Your task to perform on an android device: turn notification dots on Image 0: 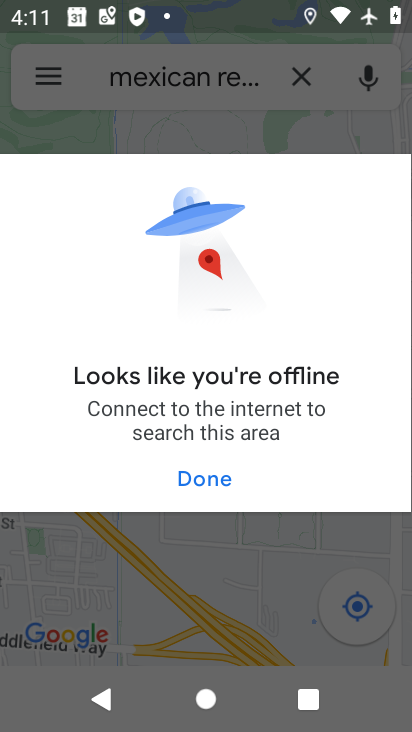
Step 0: press back button
Your task to perform on an android device: turn notification dots on Image 1: 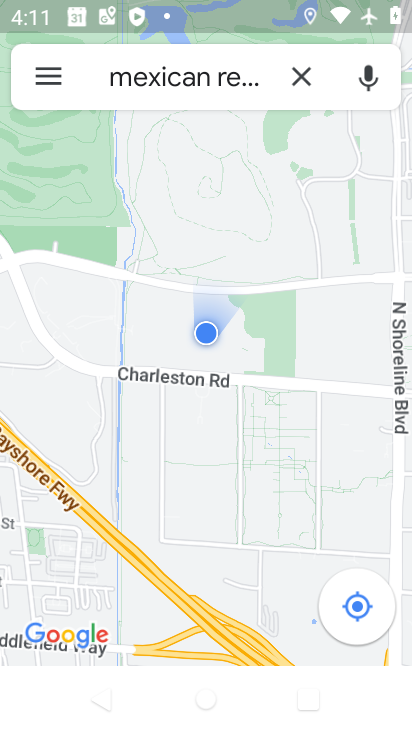
Step 1: press back button
Your task to perform on an android device: turn notification dots on Image 2: 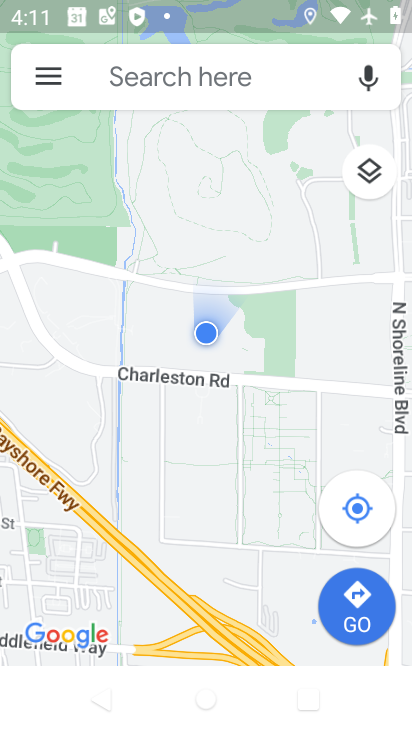
Step 2: press home button
Your task to perform on an android device: turn notification dots on Image 3: 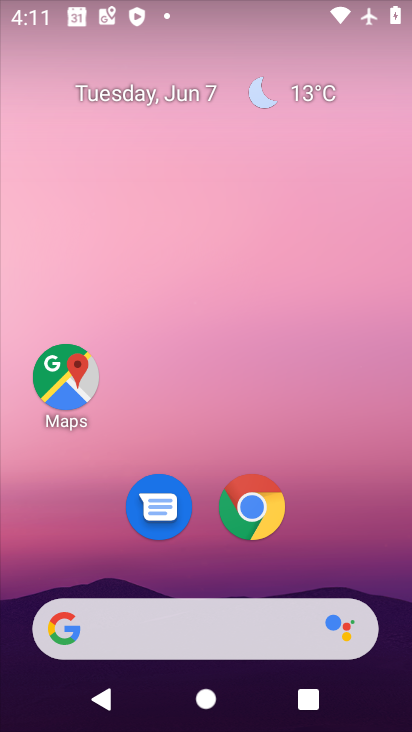
Step 3: drag from (357, 552) to (235, 26)
Your task to perform on an android device: turn notification dots on Image 4: 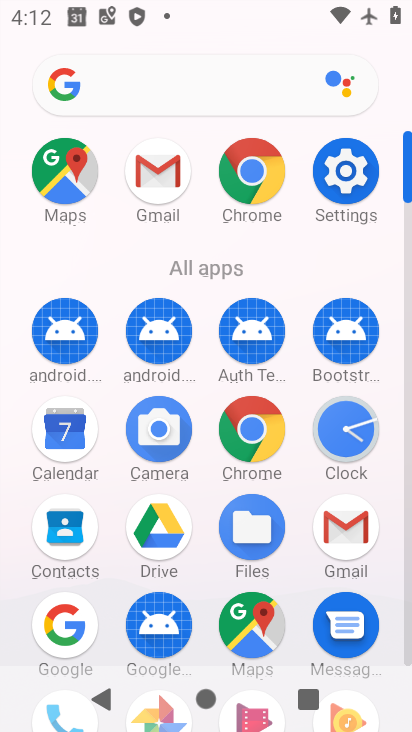
Step 4: click (346, 166)
Your task to perform on an android device: turn notification dots on Image 5: 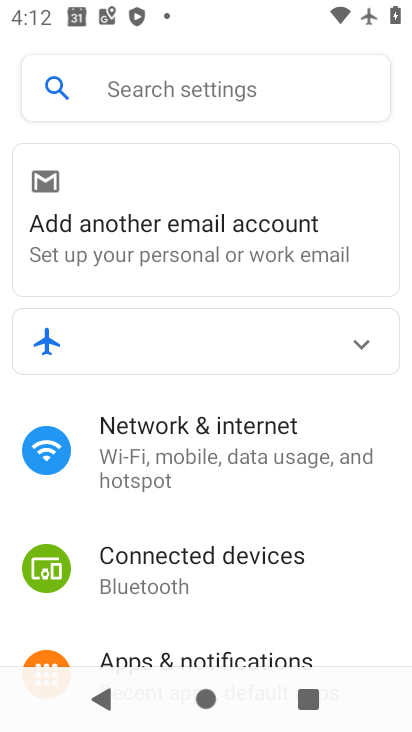
Step 5: drag from (237, 615) to (277, 230)
Your task to perform on an android device: turn notification dots on Image 6: 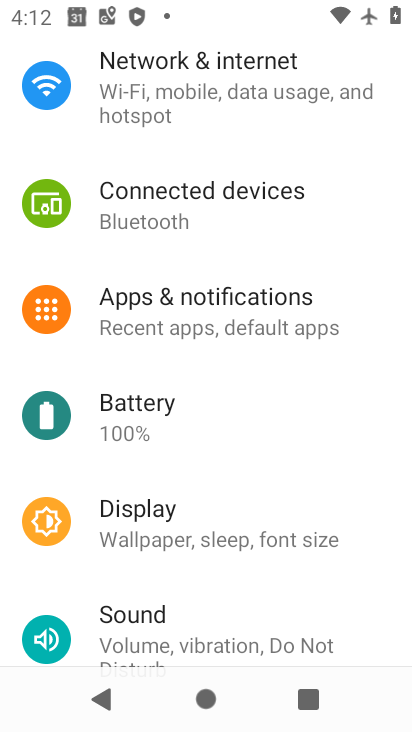
Step 6: click (239, 299)
Your task to perform on an android device: turn notification dots on Image 7: 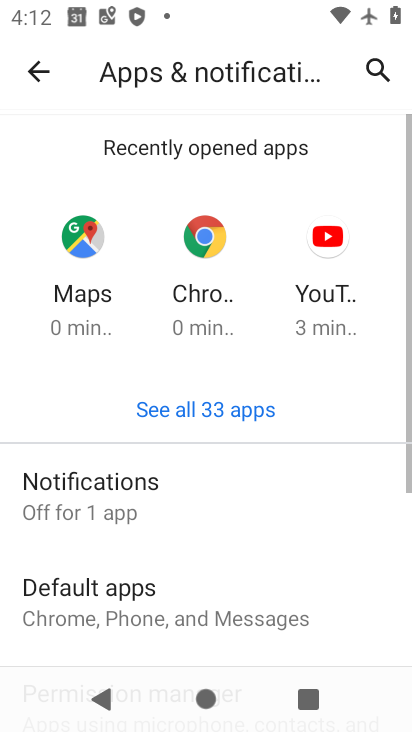
Step 7: click (163, 497)
Your task to perform on an android device: turn notification dots on Image 8: 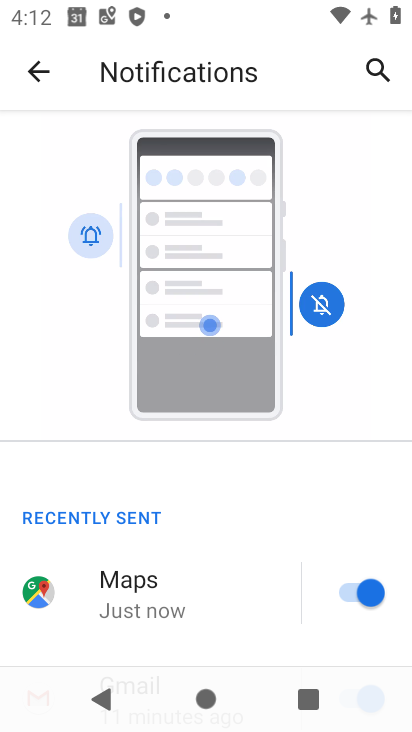
Step 8: drag from (174, 522) to (192, 85)
Your task to perform on an android device: turn notification dots on Image 9: 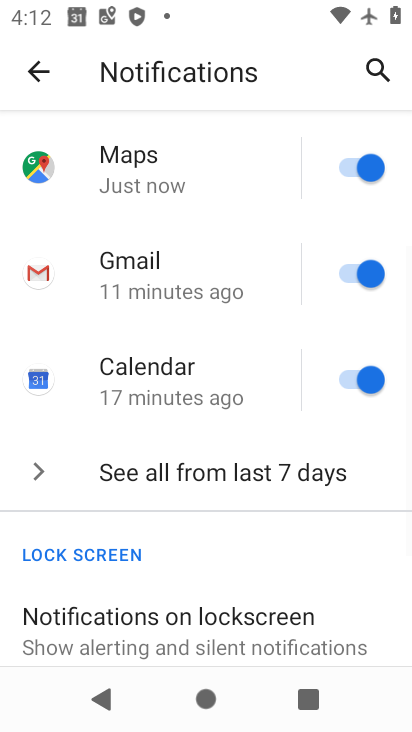
Step 9: drag from (197, 567) to (193, 166)
Your task to perform on an android device: turn notification dots on Image 10: 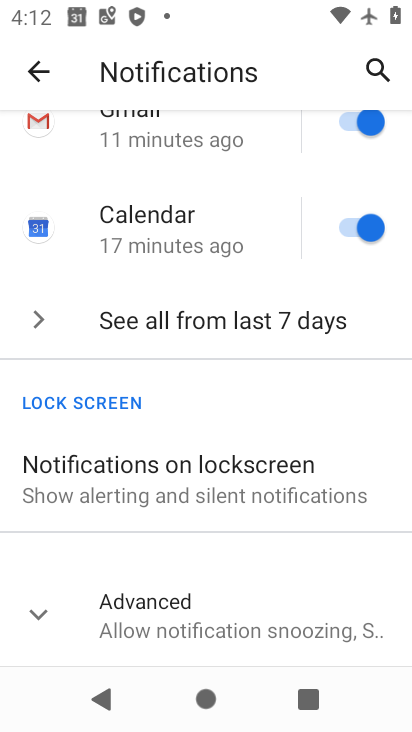
Step 10: drag from (177, 574) to (207, 256)
Your task to perform on an android device: turn notification dots on Image 11: 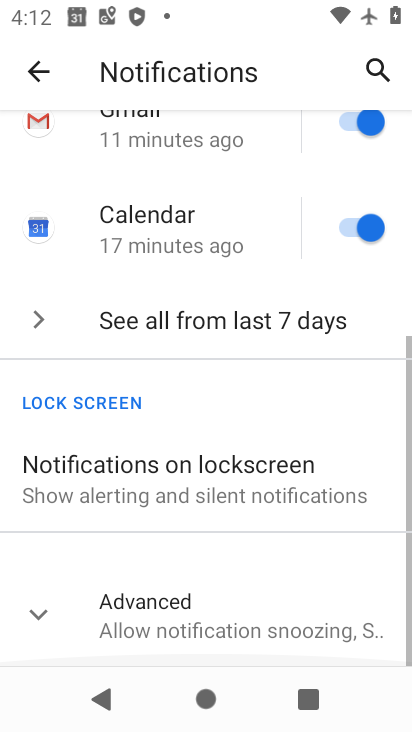
Step 11: click (85, 615)
Your task to perform on an android device: turn notification dots on Image 12: 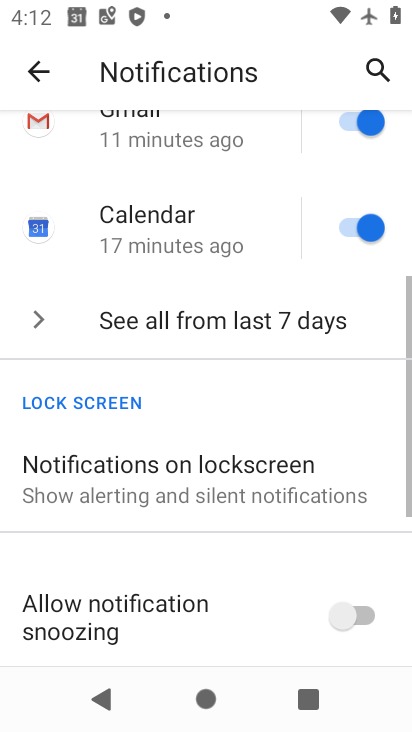
Step 12: drag from (201, 611) to (241, 217)
Your task to perform on an android device: turn notification dots on Image 13: 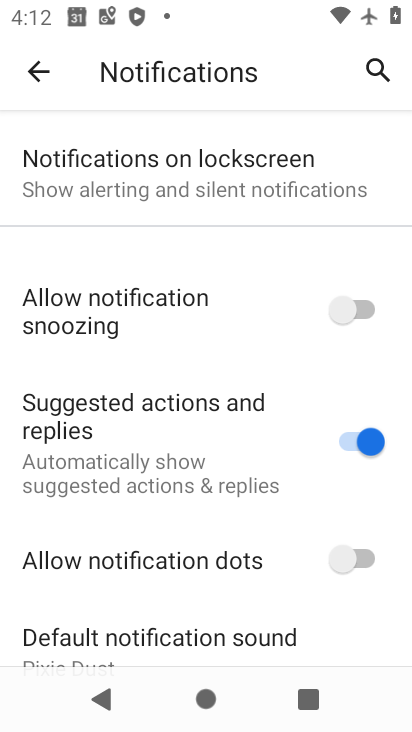
Step 13: click (343, 564)
Your task to perform on an android device: turn notification dots on Image 14: 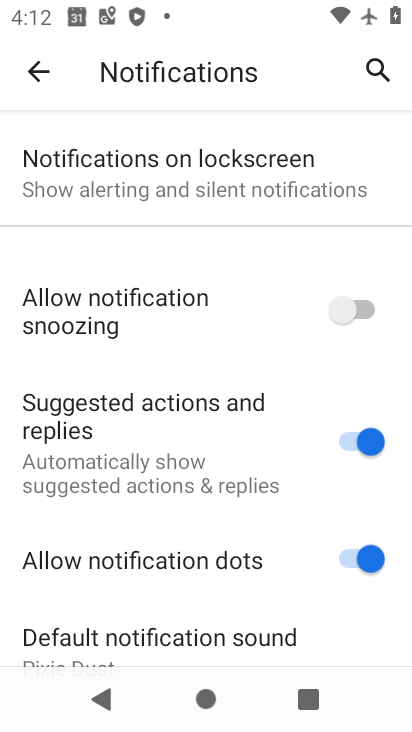
Step 14: task complete